Your task to perform on an android device: clear history in the chrome app Image 0: 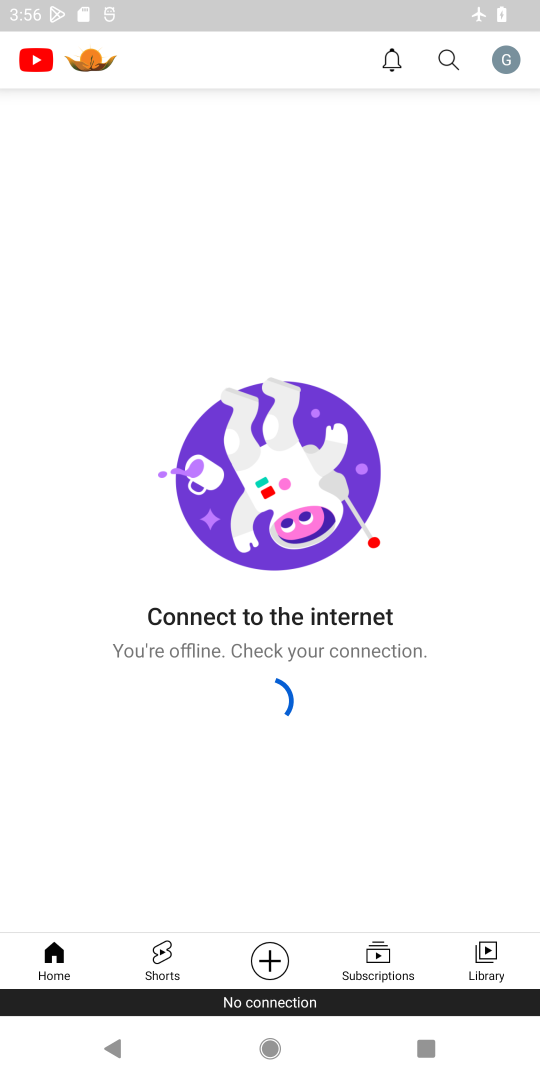
Step 0: press back button
Your task to perform on an android device: clear history in the chrome app Image 1: 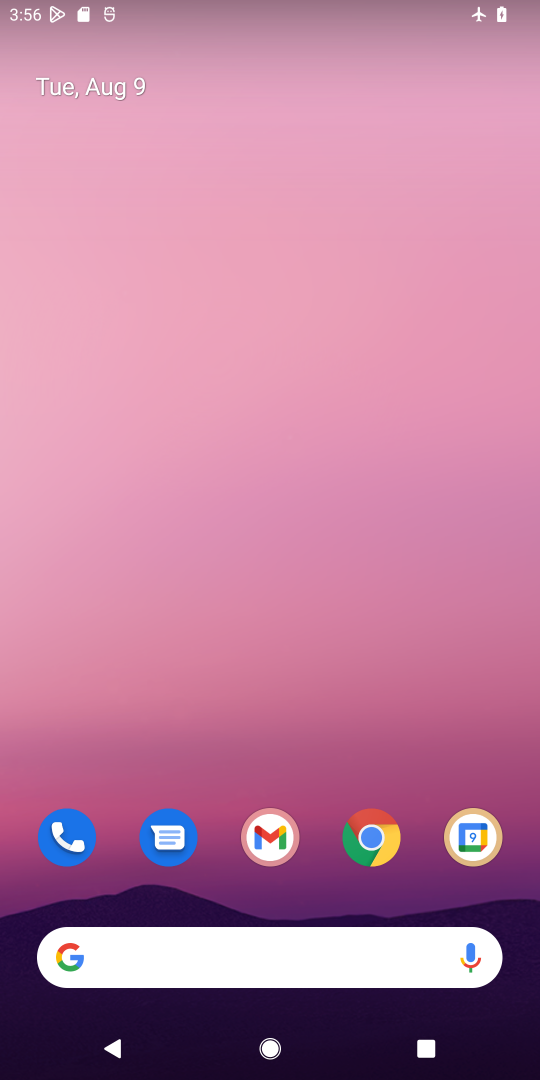
Step 1: drag from (273, 862) to (236, 357)
Your task to perform on an android device: clear history in the chrome app Image 2: 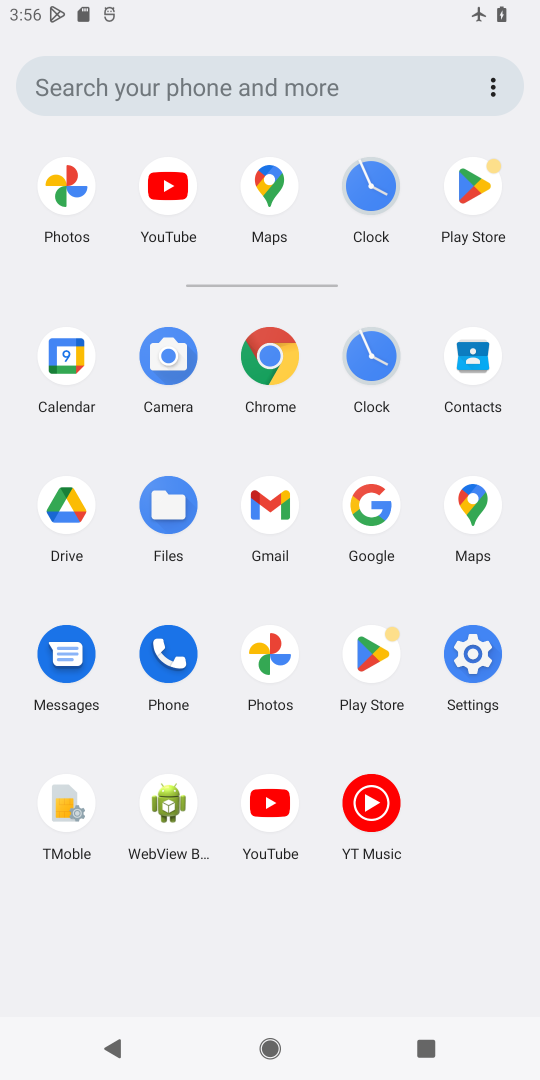
Step 2: click (246, 337)
Your task to perform on an android device: clear history in the chrome app Image 3: 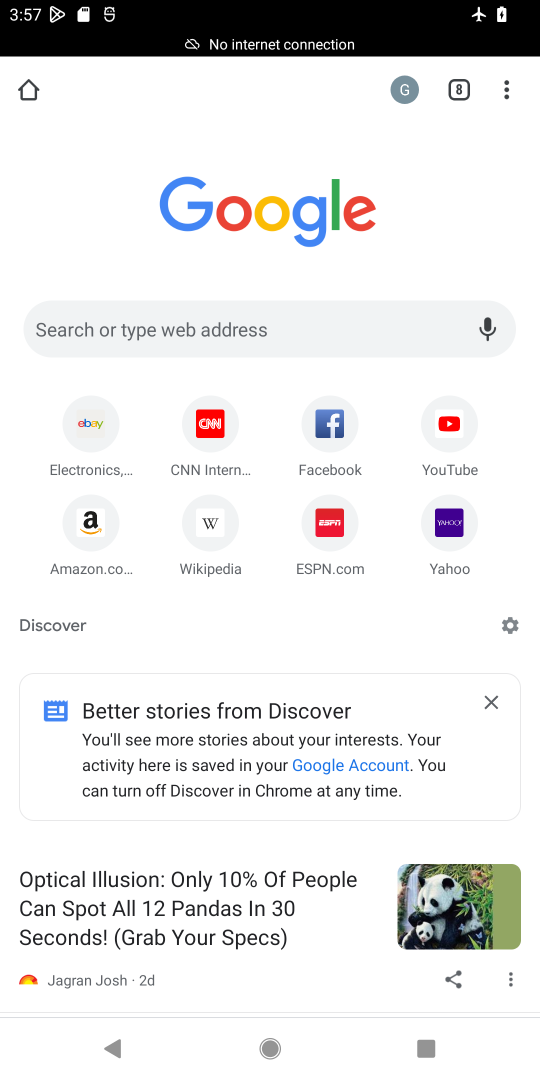
Step 3: click (510, 88)
Your task to perform on an android device: clear history in the chrome app Image 4: 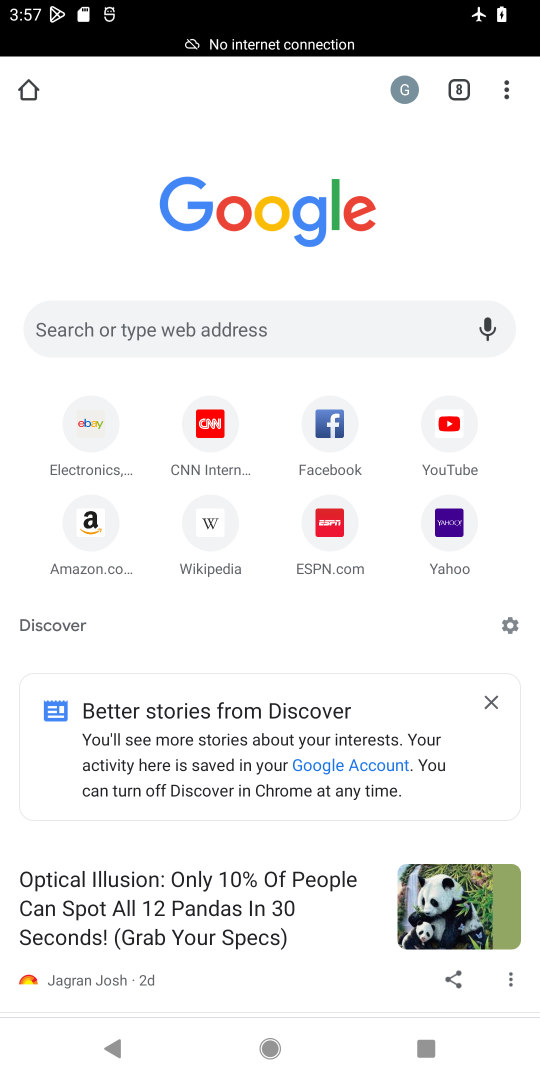
Step 4: click (516, 74)
Your task to perform on an android device: clear history in the chrome app Image 5: 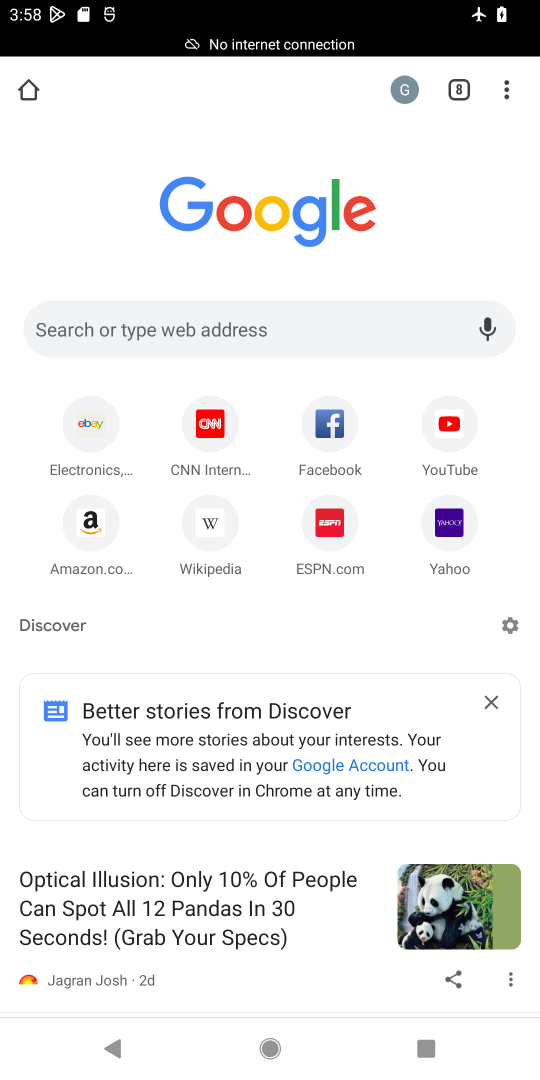
Step 5: click (511, 79)
Your task to perform on an android device: clear history in the chrome app Image 6: 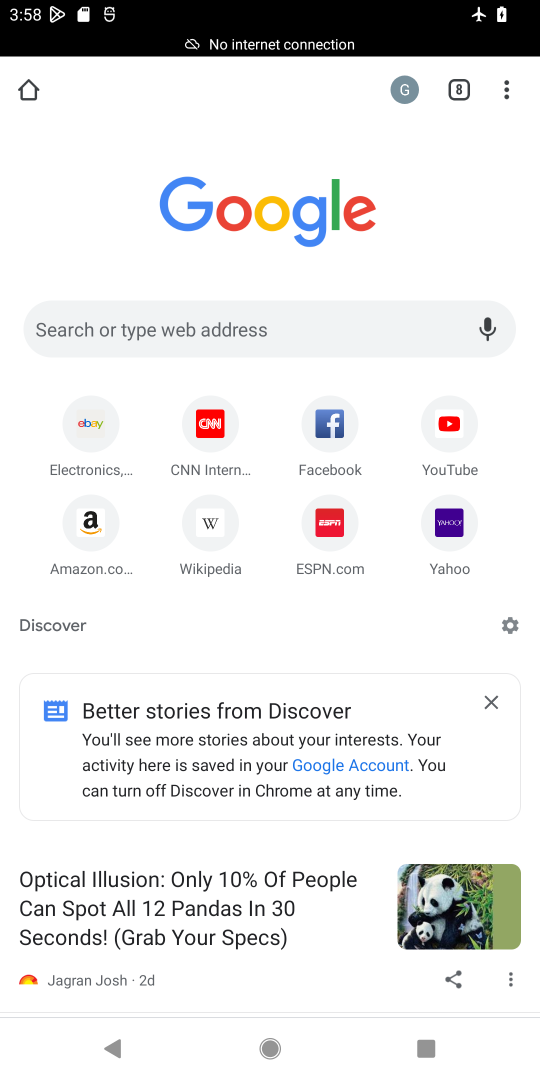
Step 6: click (511, 79)
Your task to perform on an android device: clear history in the chrome app Image 7: 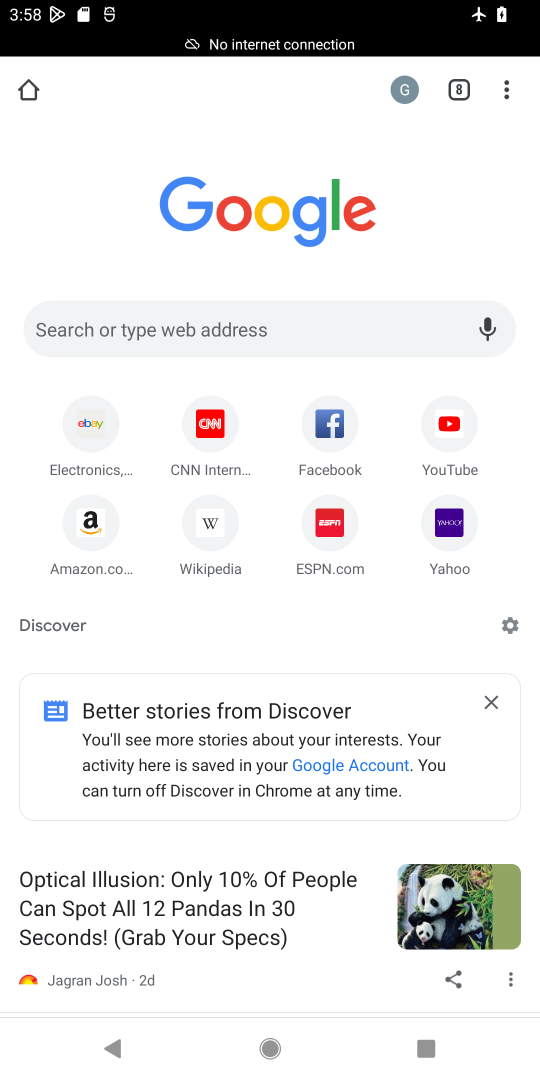
Step 7: click (529, 78)
Your task to perform on an android device: clear history in the chrome app Image 8: 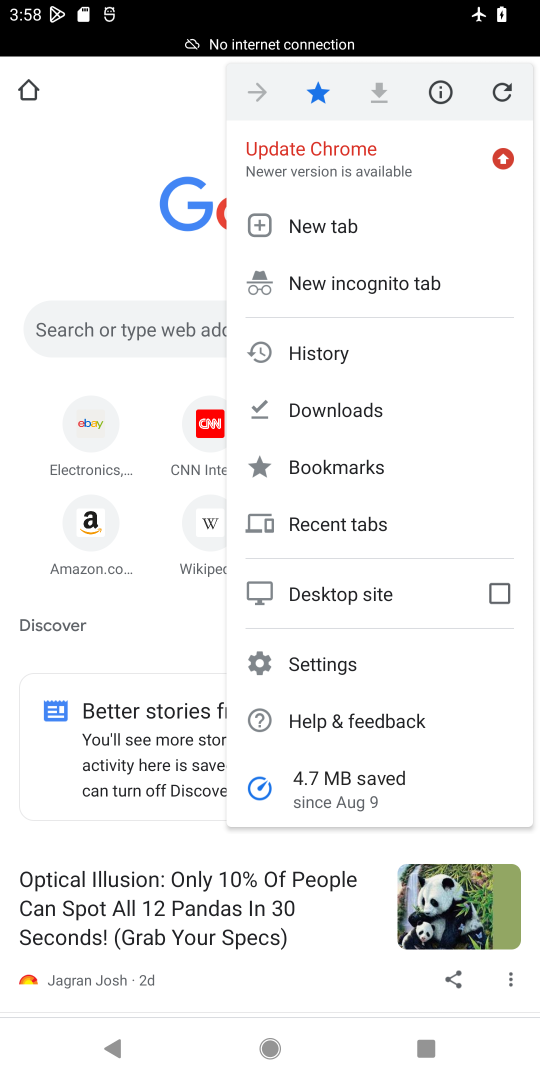
Step 8: click (356, 353)
Your task to perform on an android device: clear history in the chrome app Image 9: 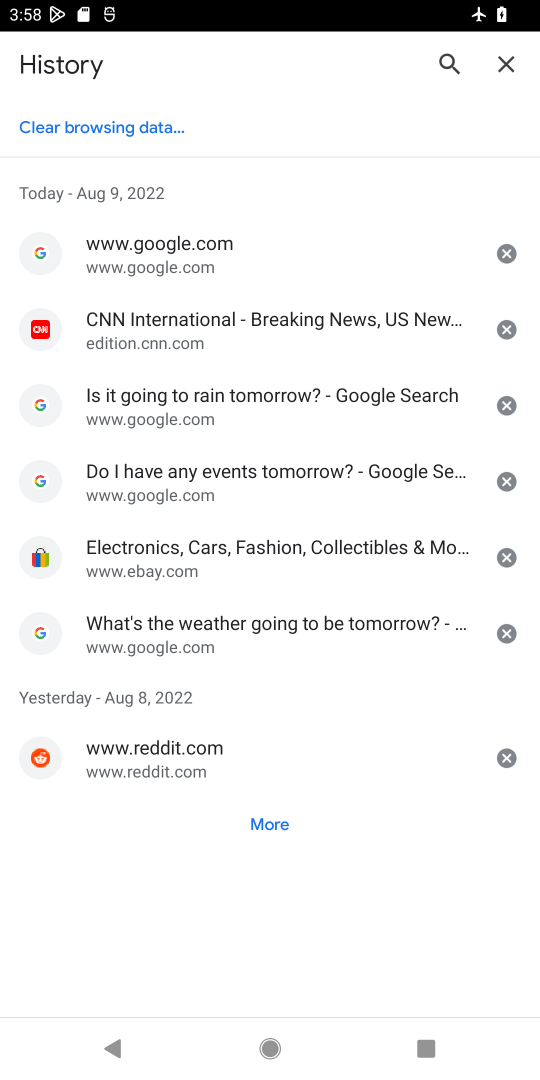
Step 9: click (139, 126)
Your task to perform on an android device: clear history in the chrome app Image 10: 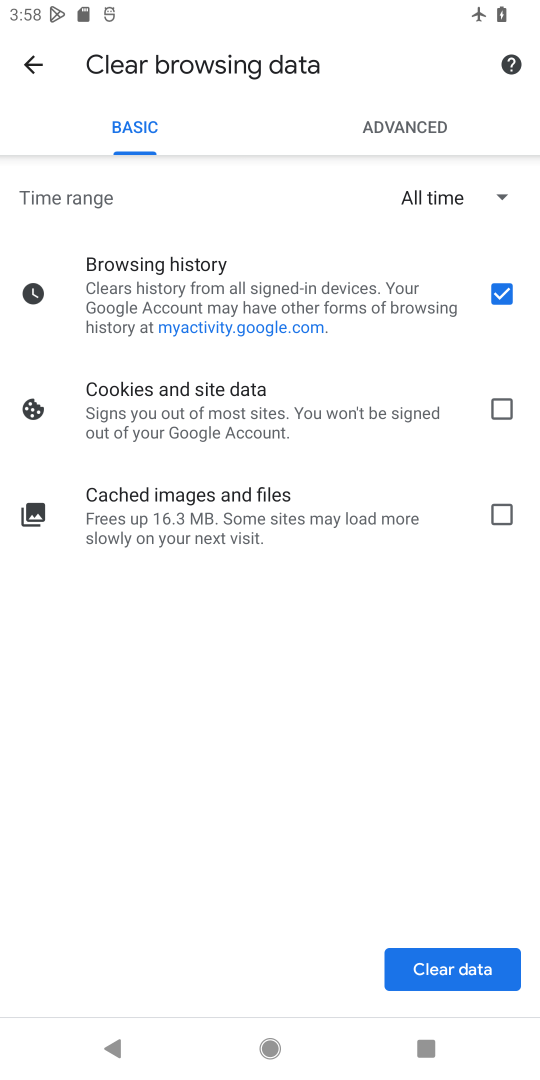
Step 10: click (460, 966)
Your task to perform on an android device: clear history in the chrome app Image 11: 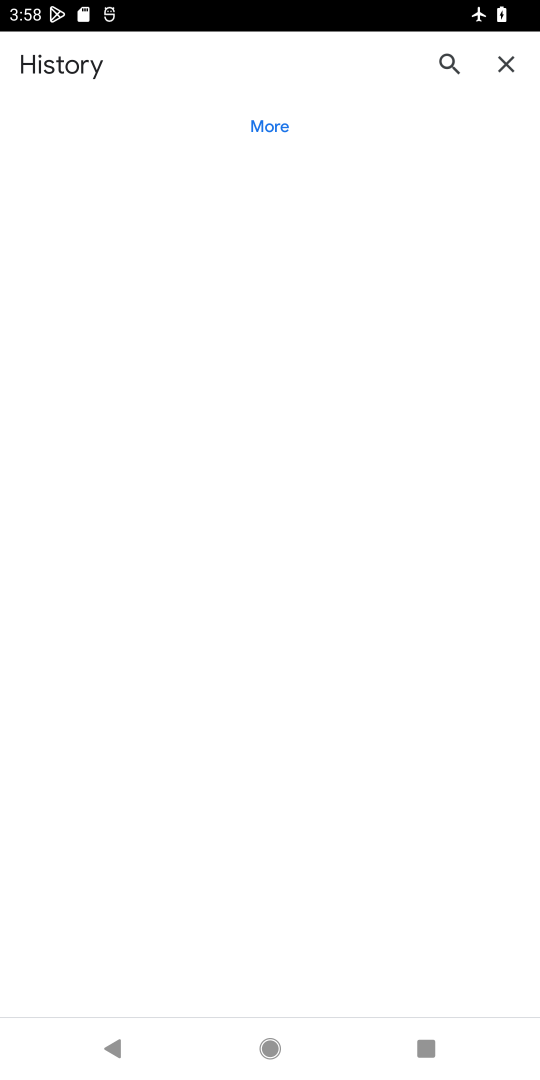
Step 11: task complete